Your task to perform on an android device: Do I have any events today? Image 0: 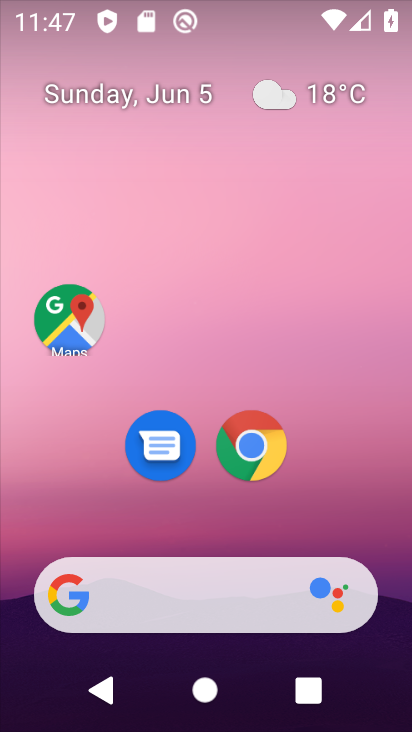
Step 0: drag from (283, 581) to (288, 133)
Your task to perform on an android device: Do I have any events today? Image 1: 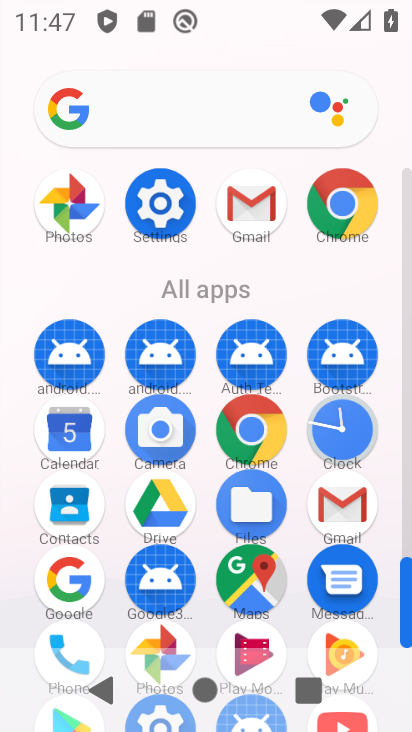
Step 1: click (83, 425)
Your task to perform on an android device: Do I have any events today? Image 2: 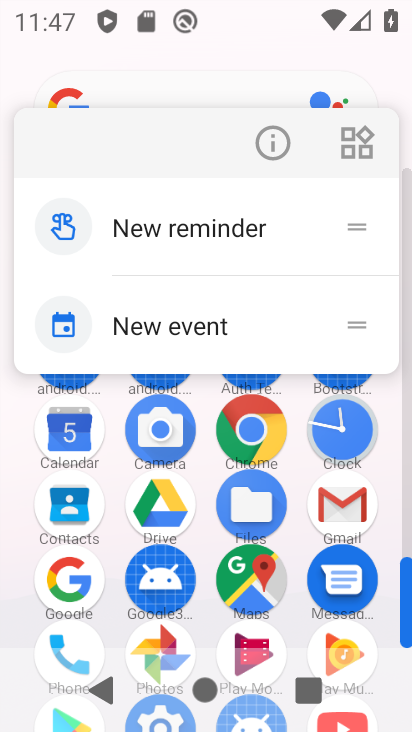
Step 2: click (70, 455)
Your task to perform on an android device: Do I have any events today? Image 3: 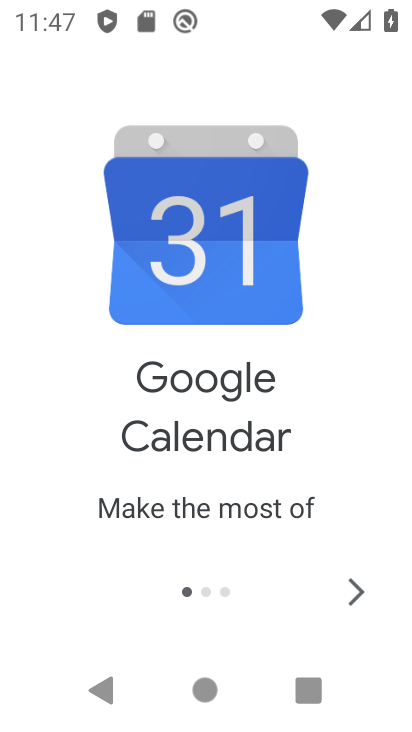
Step 3: click (370, 589)
Your task to perform on an android device: Do I have any events today? Image 4: 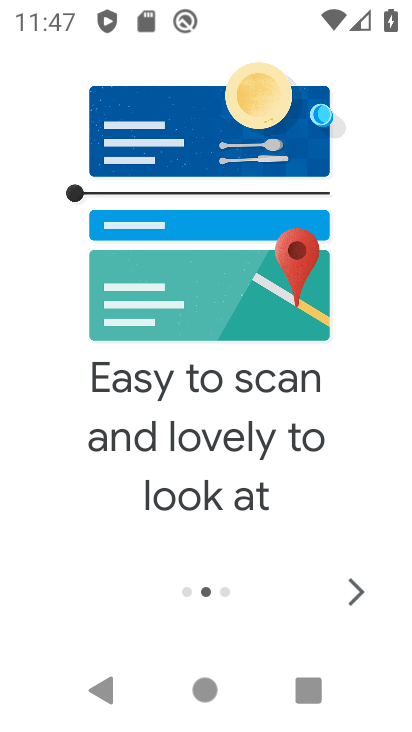
Step 4: click (352, 597)
Your task to perform on an android device: Do I have any events today? Image 5: 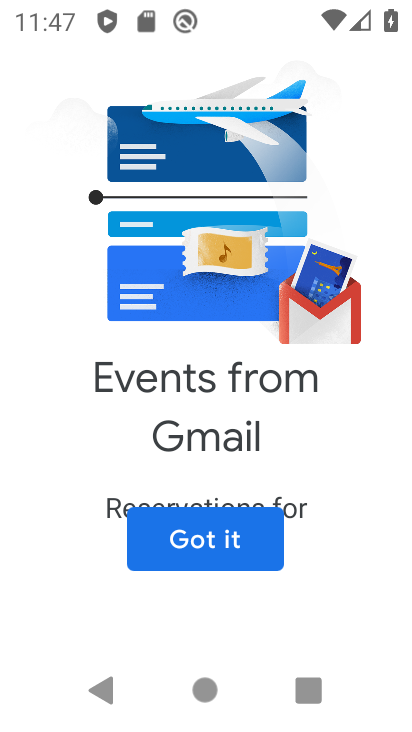
Step 5: click (257, 558)
Your task to perform on an android device: Do I have any events today? Image 6: 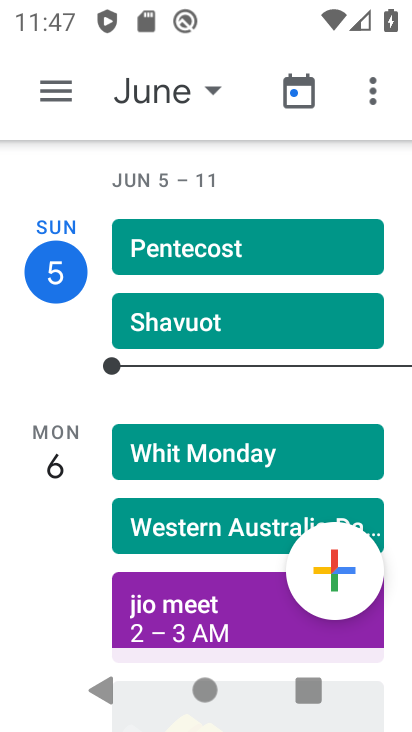
Step 6: click (213, 97)
Your task to perform on an android device: Do I have any events today? Image 7: 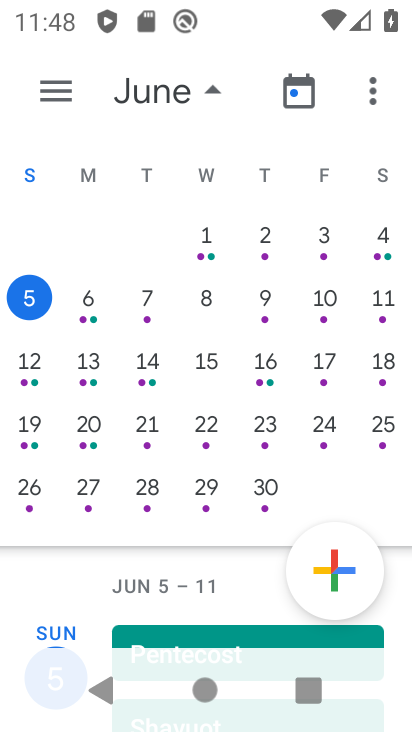
Step 7: click (23, 288)
Your task to perform on an android device: Do I have any events today? Image 8: 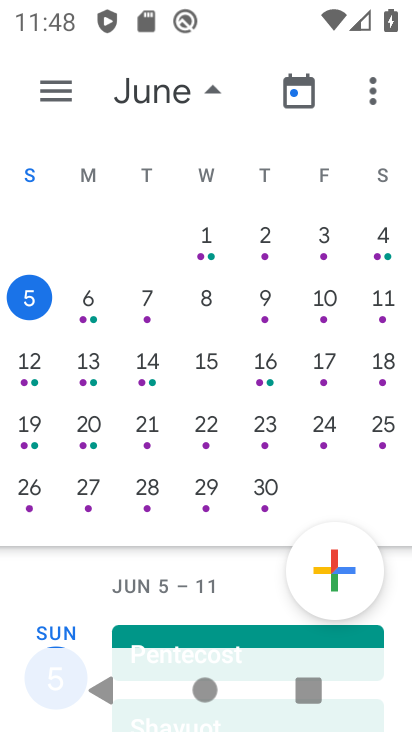
Step 8: task complete